Your task to perform on an android device: read, delete, or share a saved page in the chrome app Image 0: 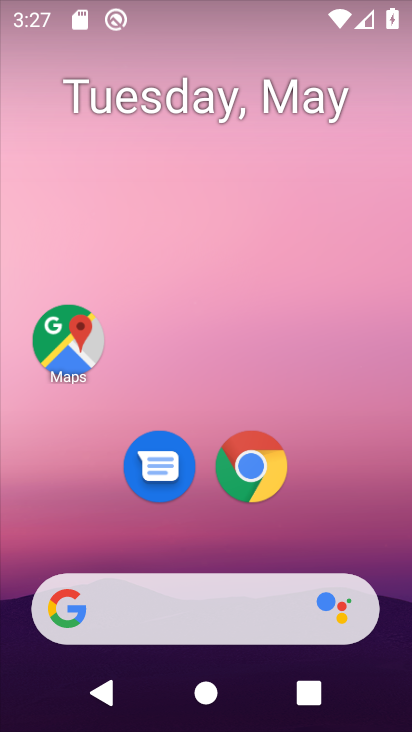
Step 0: click (260, 469)
Your task to perform on an android device: read, delete, or share a saved page in the chrome app Image 1: 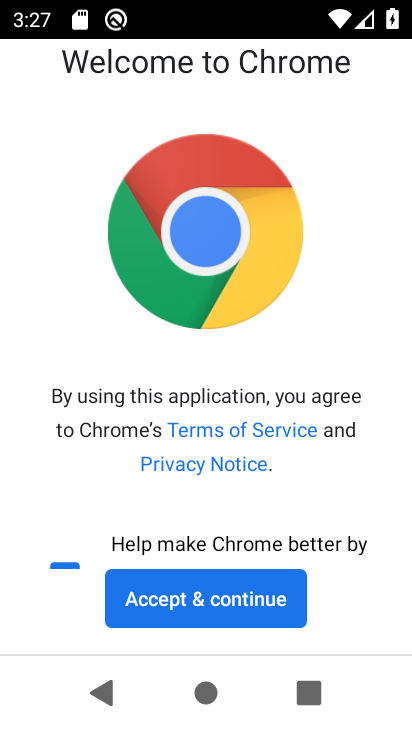
Step 1: click (252, 605)
Your task to perform on an android device: read, delete, or share a saved page in the chrome app Image 2: 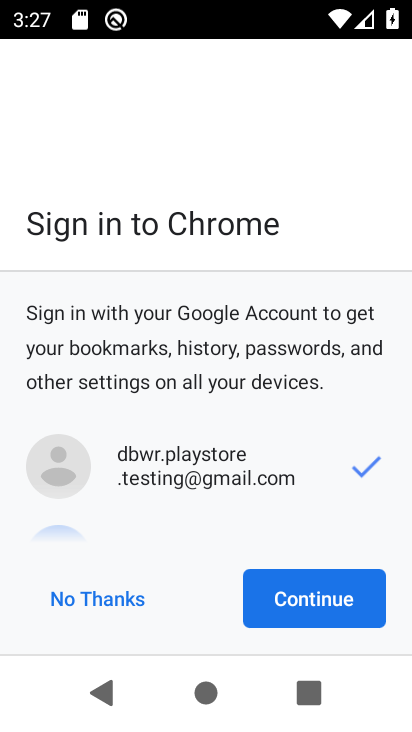
Step 2: click (276, 605)
Your task to perform on an android device: read, delete, or share a saved page in the chrome app Image 3: 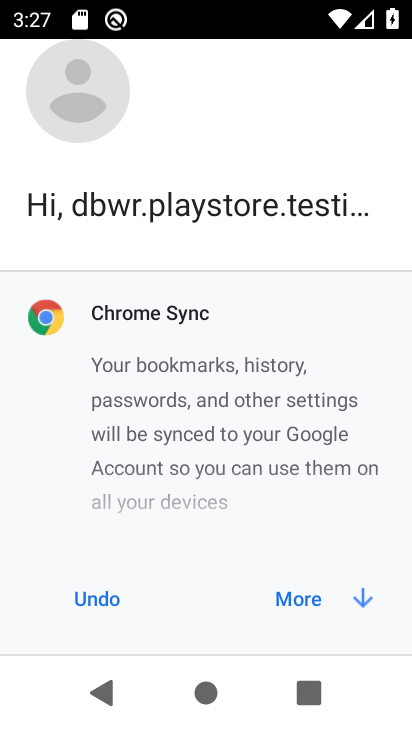
Step 3: click (320, 605)
Your task to perform on an android device: read, delete, or share a saved page in the chrome app Image 4: 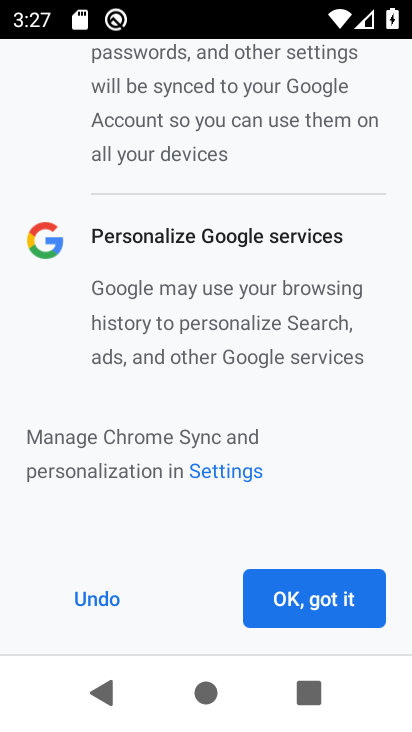
Step 4: click (320, 605)
Your task to perform on an android device: read, delete, or share a saved page in the chrome app Image 5: 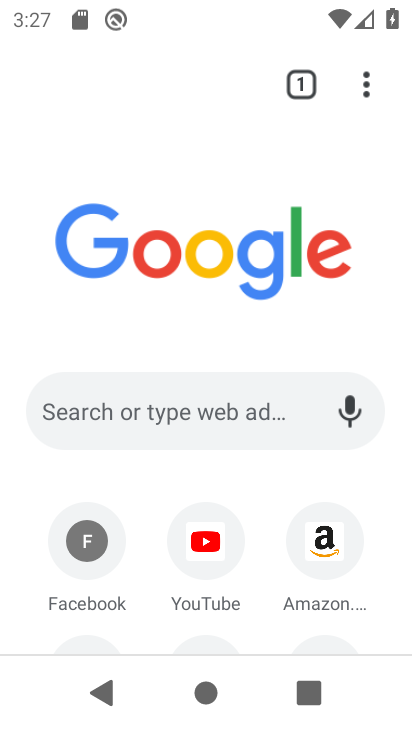
Step 5: click (325, 536)
Your task to perform on an android device: read, delete, or share a saved page in the chrome app Image 6: 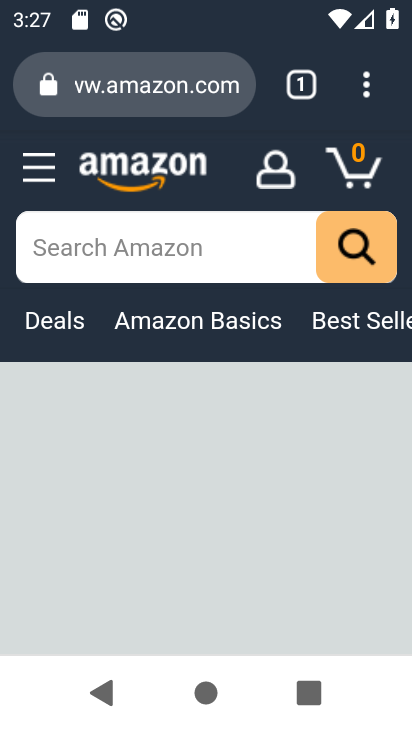
Step 6: drag from (277, 557) to (361, 185)
Your task to perform on an android device: read, delete, or share a saved page in the chrome app Image 7: 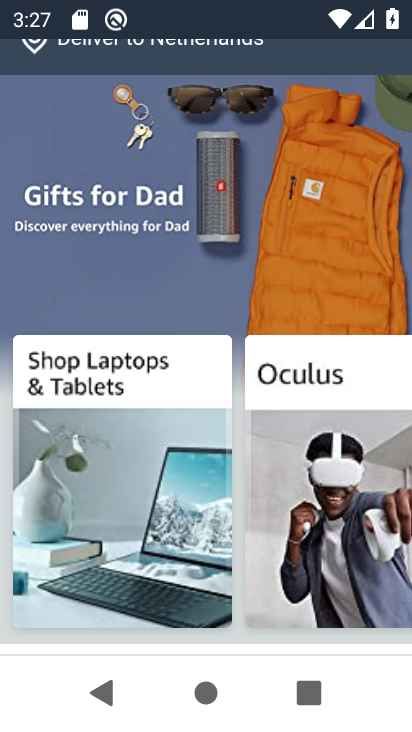
Step 7: drag from (217, 501) to (294, 216)
Your task to perform on an android device: read, delete, or share a saved page in the chrome app Image 8: 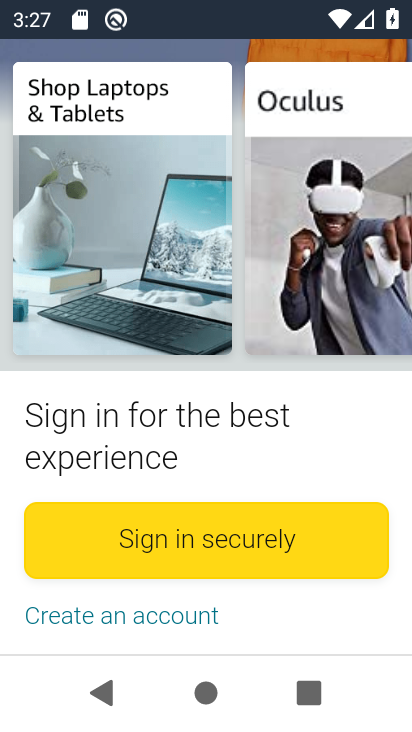
Step 8: drag from (284, 278) to (233, 566)
Your task to perform on an android device: read, delete, or share a saved page in the chrome app Image 9: 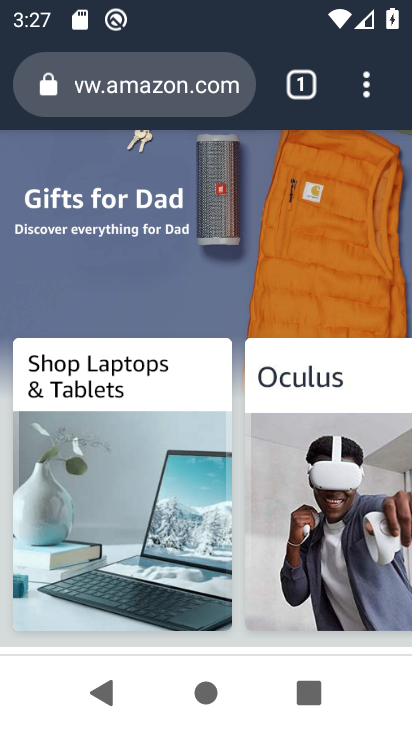
Step 9: drag from (365, 83) to (111, 89)
Your task to perform on an android device: read, delete, or share a saved page in the chrome app Image 10: 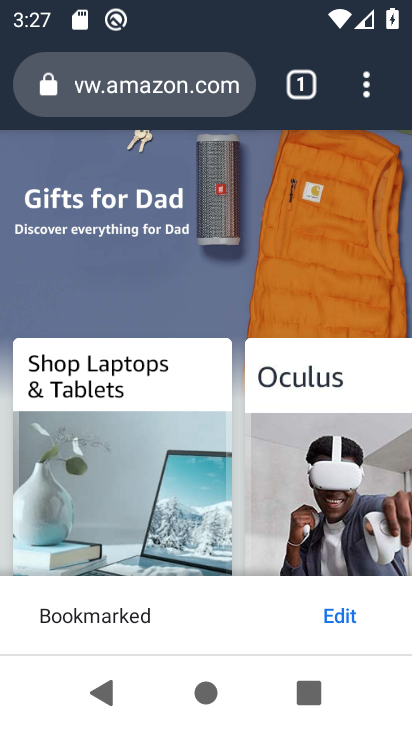
Step 10: drag from (368, 82) to (129, 92)
Your task to perform on an android device: read, delete, or share a saved page in the chrome app Image 11: 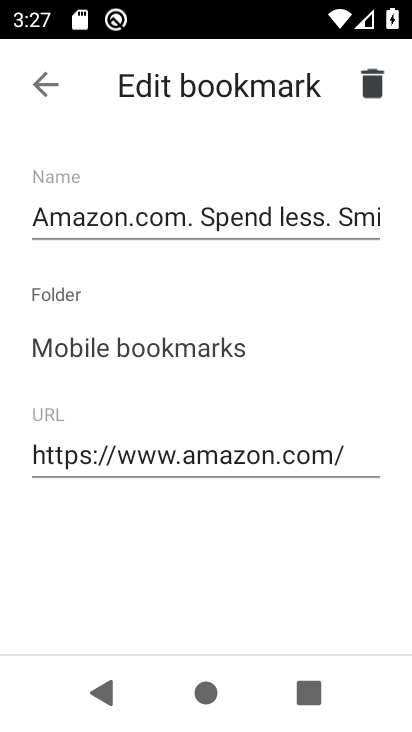
Step 11: click (364, 76)
Your task to perform on an android device: read, delete, or share a saved page in the chrome app Image 12: 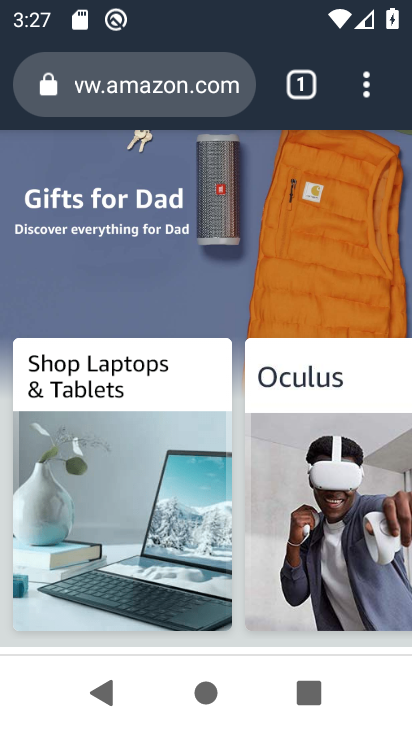
Step 12: task complete